Your task to perform on an android device: show emergency info Image 0: 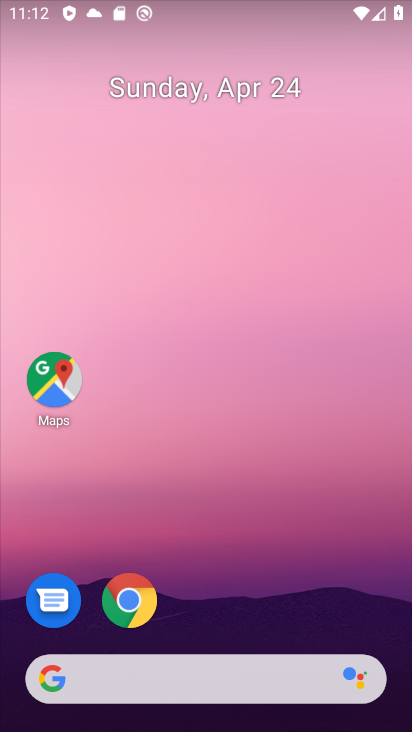
Step 0: drag from (249, 576) to (210, 194)
Your task to perform on an android device: show emergency info Image 1: 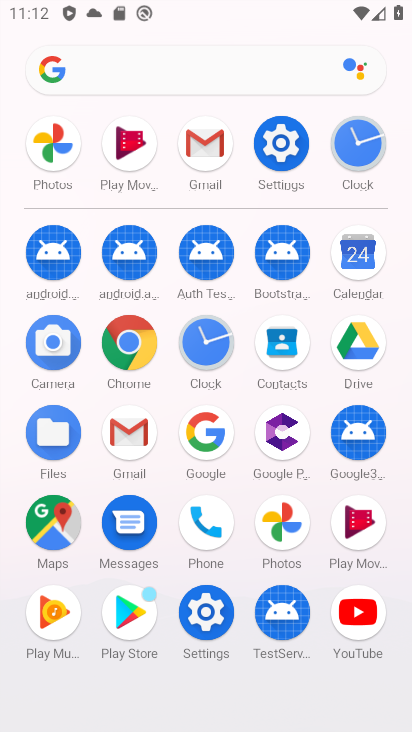
Step 1: click (279, 151)
Your task to perform on an android device: show emergency info Image 2: 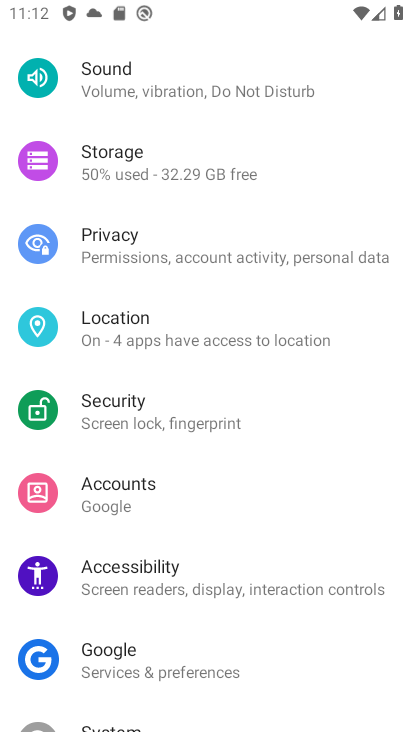
Step 2: drag from (250, 627) to (171, 72)
Your task to perform on an android device: show emergency info Image 3: 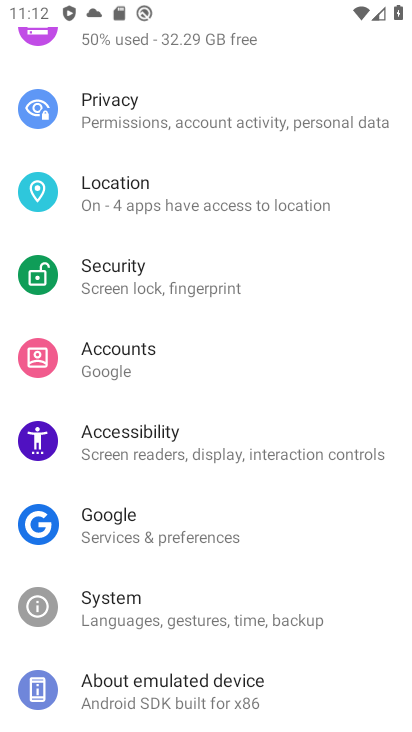
Step 3: click (133, 689)
Your task to perform on an android device: show emergency info Image 4: 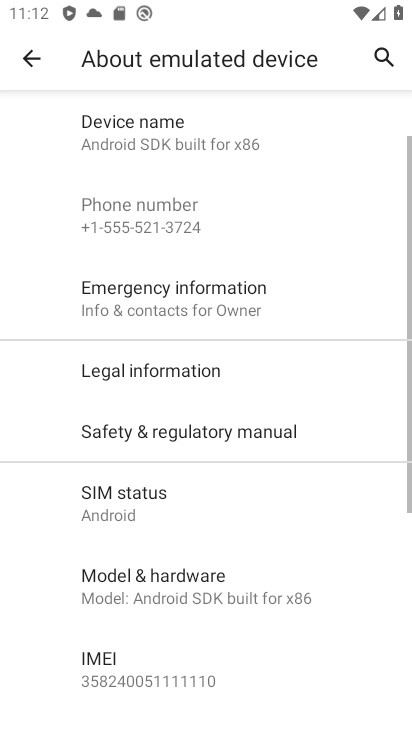
Step 4: click (172, 298)
Your task to perform on an android device: show emergency info Image 5: 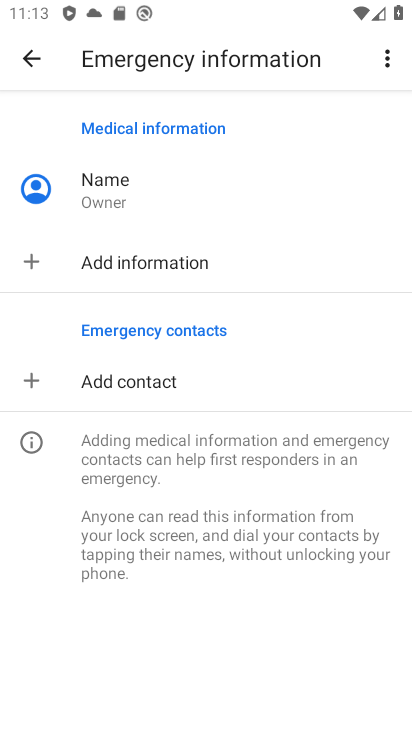
Step 5: task complete